Your task to perform on an android device: add a contact Image 0: 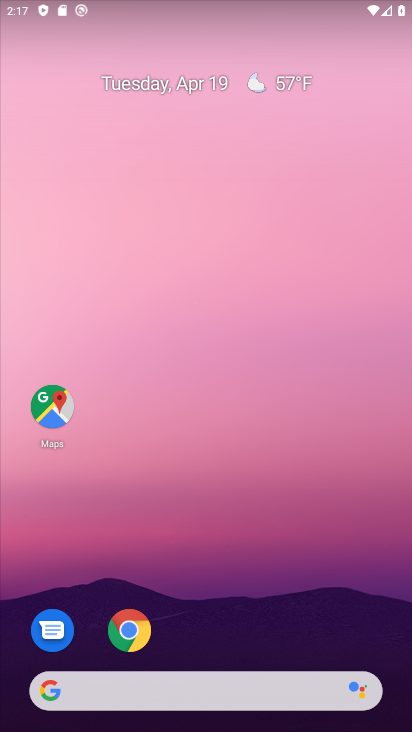
Step 0: drag from (245, 550) to (255, 87)
Your task to perform on an android device: add a contact Image 1: 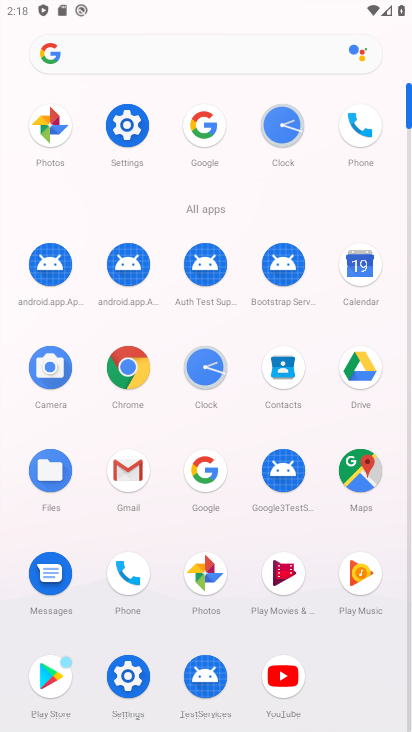
Step 1: drag from (168, 550) to (181, 289)
Your task to perform on an android device: add a contact Image 2: 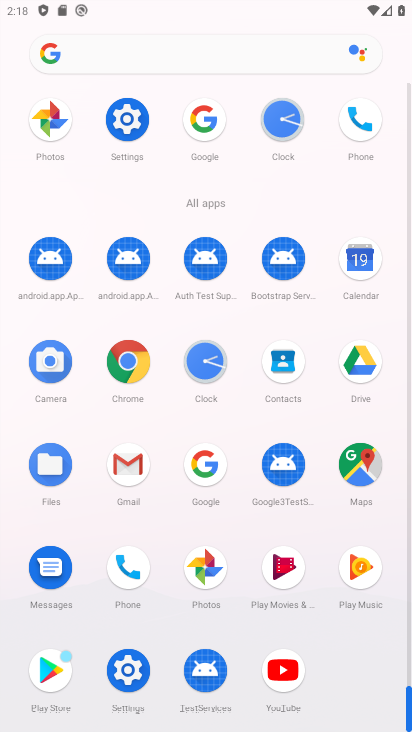
Step 2: click (288, 365)
Your task to perform on an android device: add a contact Image 3: 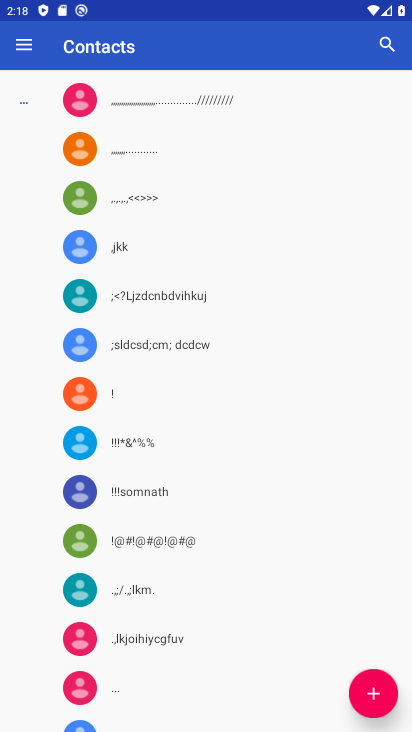
Step 3: click (368, 690)
Your task to perform on an android device: add a contact Image 4: 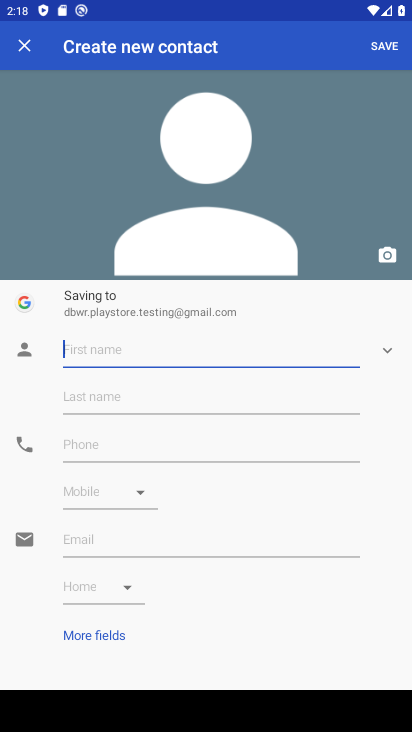
Step 4: type "hjhjh"
Your task to perform on an android device: add a contact Image 5: 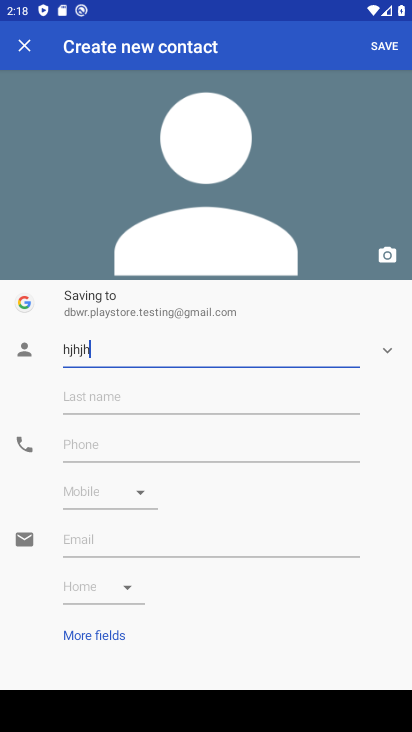
Step 5: type ""
Your task to perform on an android device: add a contact Image 6: 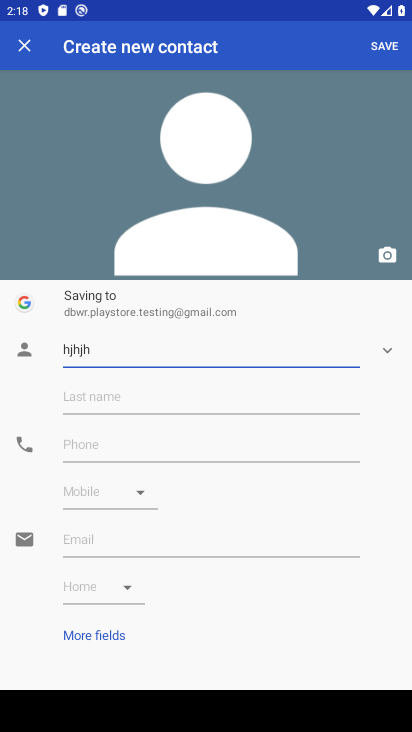
Step 6: click (155, 395)
Your task to perform on an android device: add a contact Image 7: 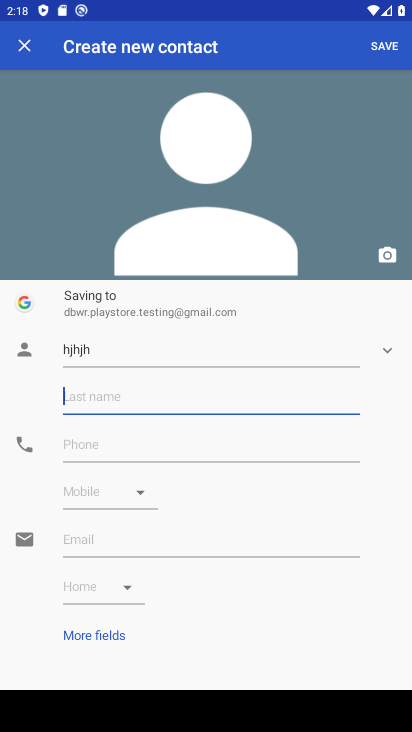
Step 7: type "ggfhgf"
Your task to perform on an android device: add a contact Image 8: 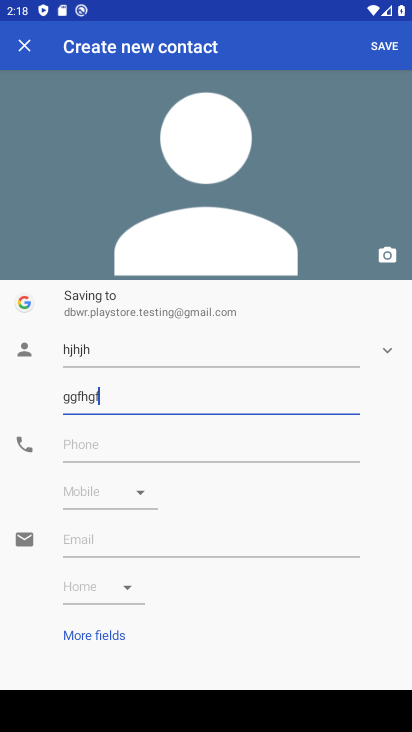
Step 8: type ""
Your task to perform on an android device: add a contact Image 9: 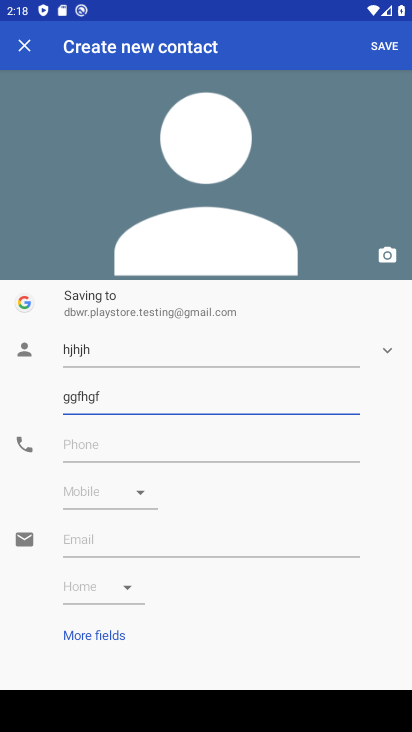
Step 9: click (144, 444)
Your task to perform on an android device: add a contact Image 10: 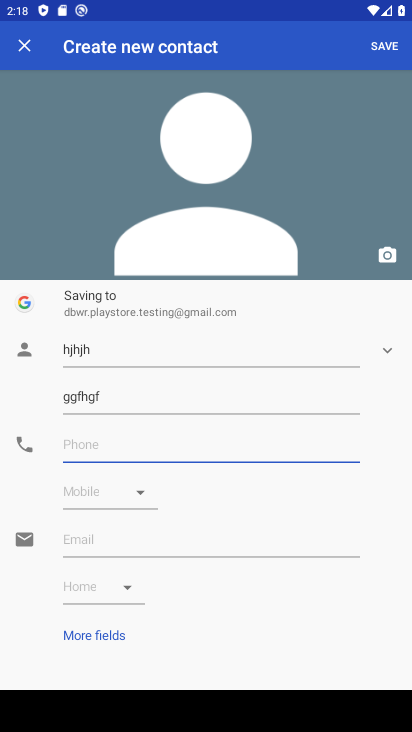
Step 10: type "76876767676"
Your task to perform on an android device: add a contact Image 11: 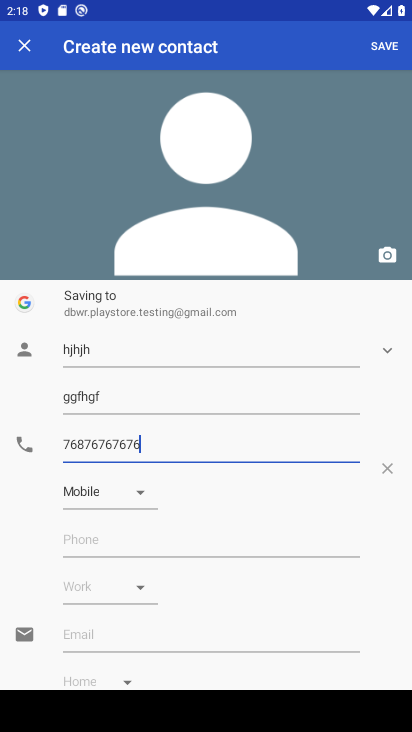
Step 11: click (376, 35)
Your task to perform on an android device: add a contact Image 12: 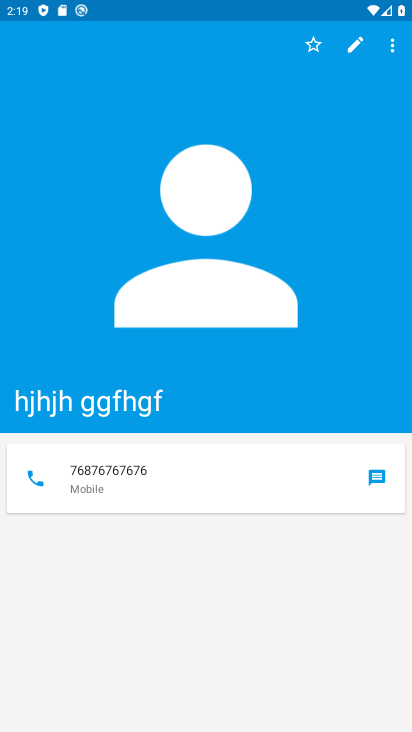
Step 12: task complete